Your task to perform on an android device: turn on javascript in the chrome app Image 0: 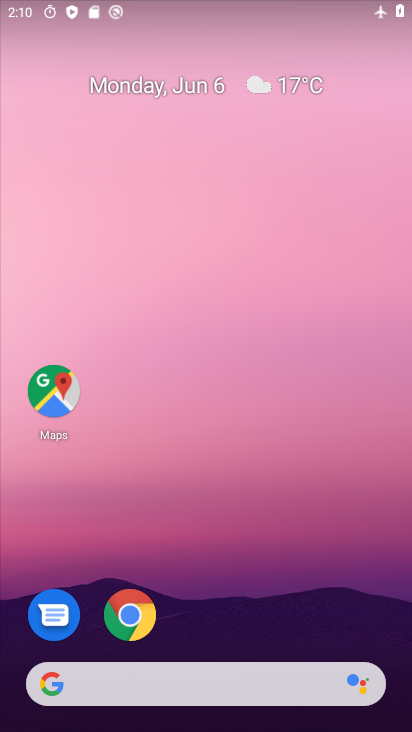
Step 0: drag from (203, 628) to (278, 188)
Your task to perform on an android device: turn on javascript in the chrome app Image 1: 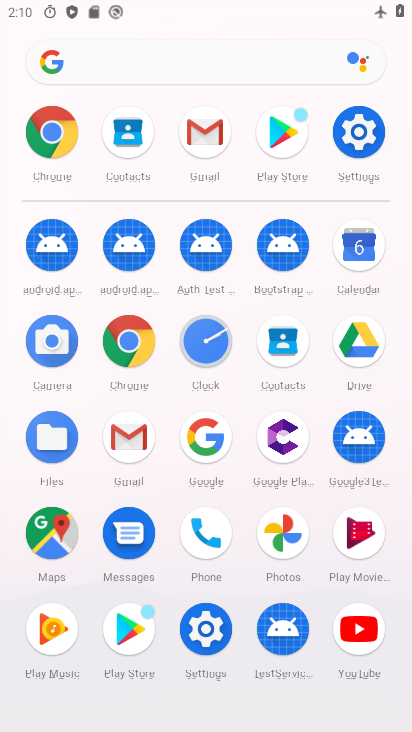
Step 1: click (123, 338)
Your task to perform on an android device: turn on javascript in the chrome app Image 2: 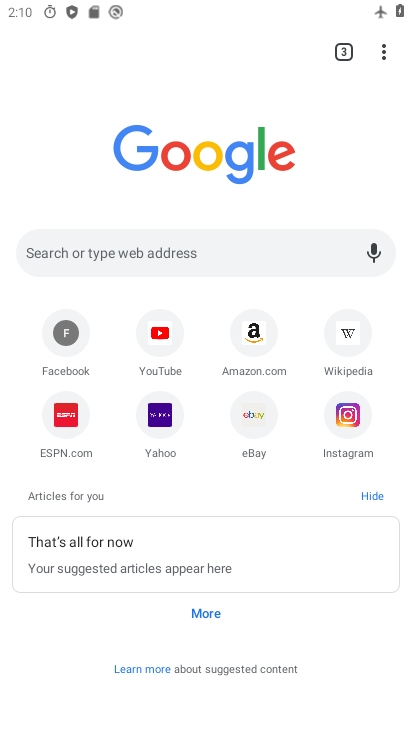
Step 2: click (377, 54)
Your task to perform on an android device: turn on javascript in the chrome app Image 3: 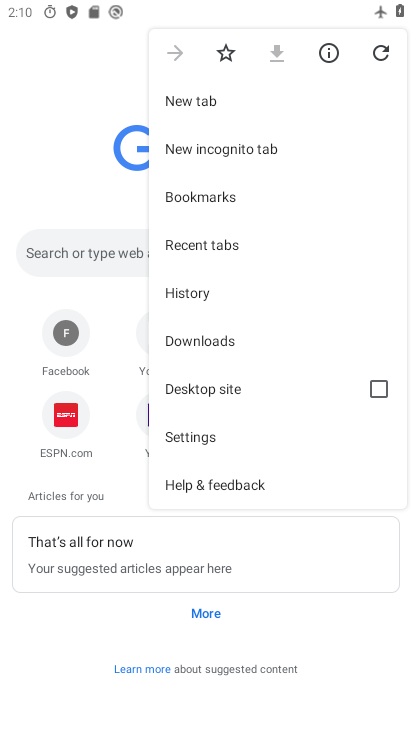
Step 3: click (198, 426)
Your task to perform on an android device: turn on javascript in the chrome app Image 4: 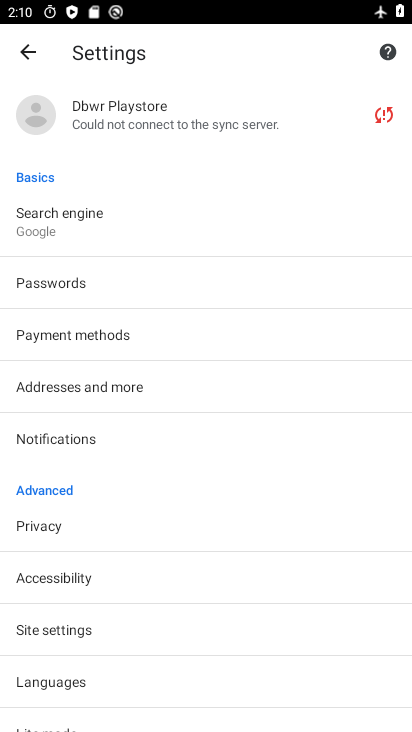
Step 4: drag from (33, 557) to (222, 115)
Your task to perform on an android device: turn on javascript in the chrome app Image 5: 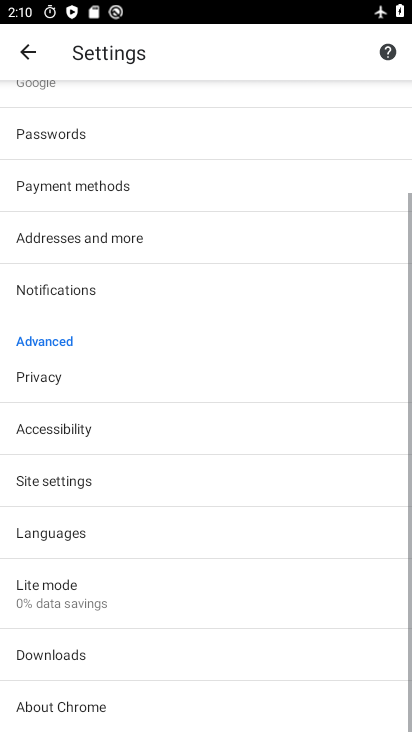
Step 5: click (109, 490)
Your task to perform on an android device: turn on javascript in the chrome app Image 6: 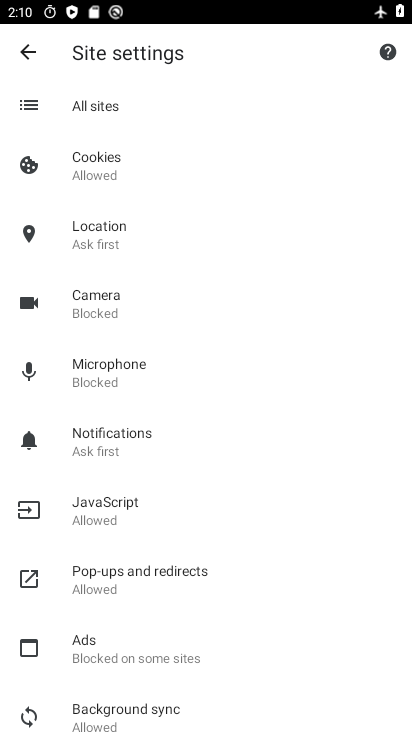
Step 6: click (139, 504)
Your task to perform on an android device: turn on javascript in the chrome app Image 7: 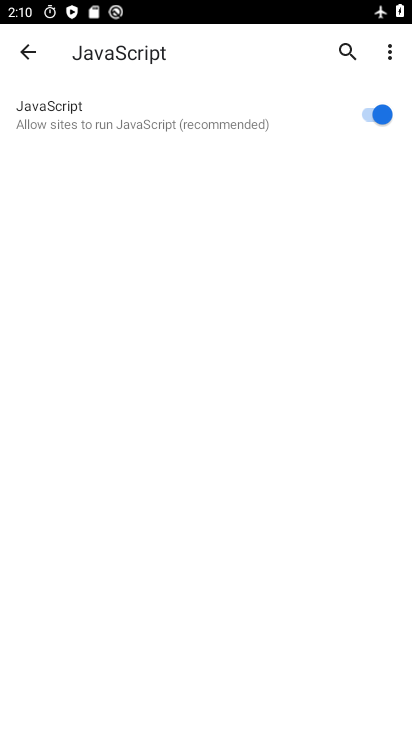
Step 7: task complete